Your task to perform on an android device: Go to network settings Image 0: 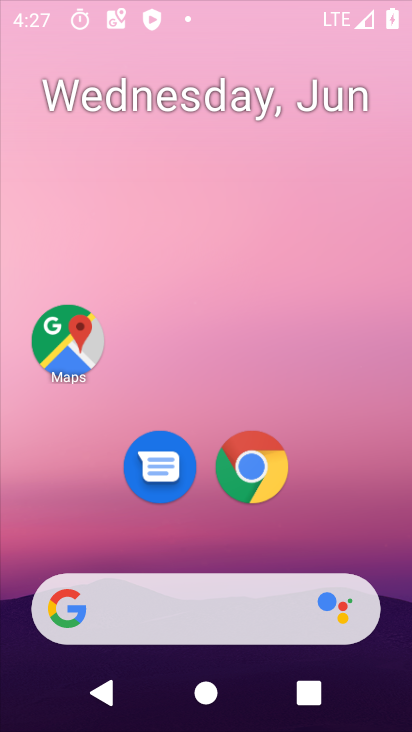
Step 0: press home button
Your task to perform on an android device: Go to network settings Image 1: 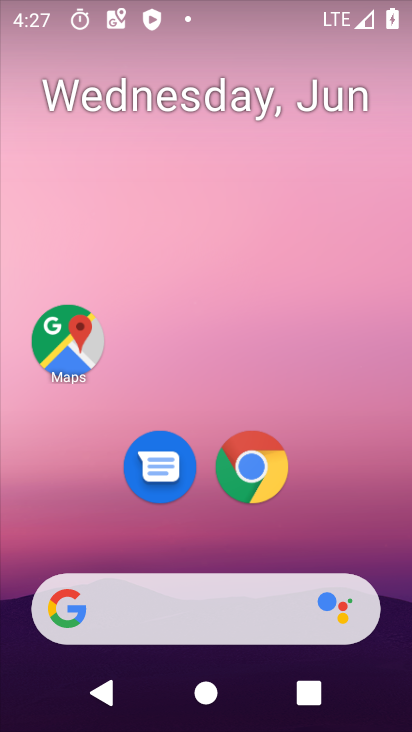
Step 1: drag from (339, 542) to (258, 4)
Your task to perform on an android device: Go to network settings Image 2: 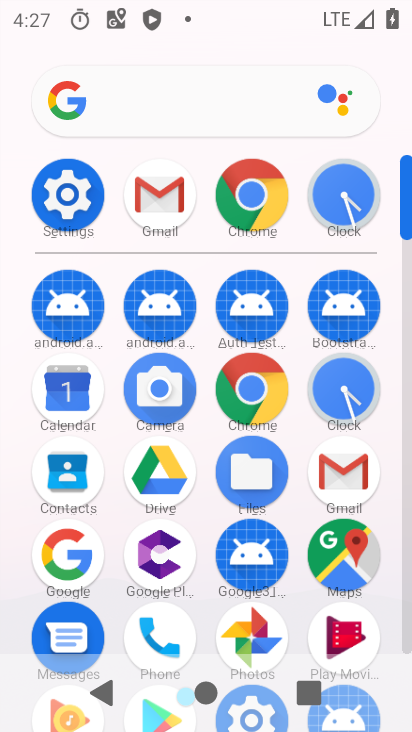
Step 2: click (68, 202)
Your task to perform on an android device: Go to network settings Image 3: 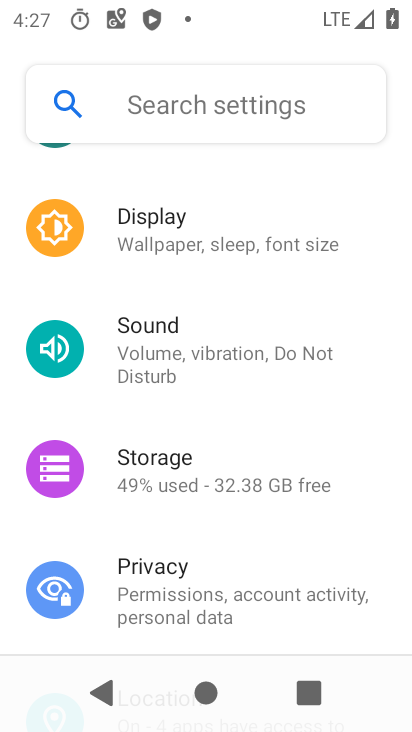
Step 3: drag from (245, 217) to (220, 725)
Your task to perform on an android device: Go to network settings Image 4: 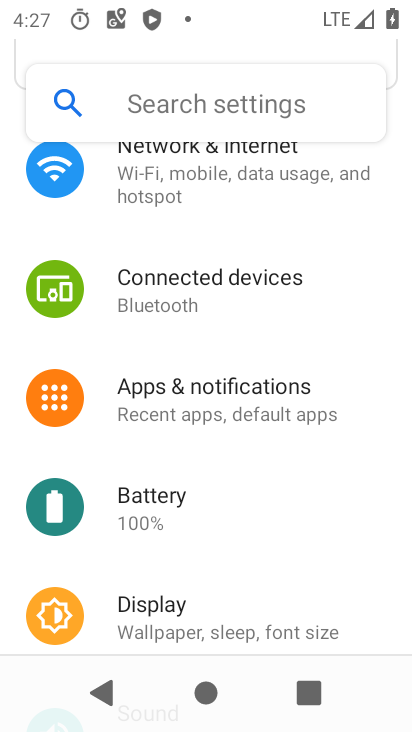
Step 4: click (231, 176)
Your task to perform on an android device: Go to network settings Image 5: 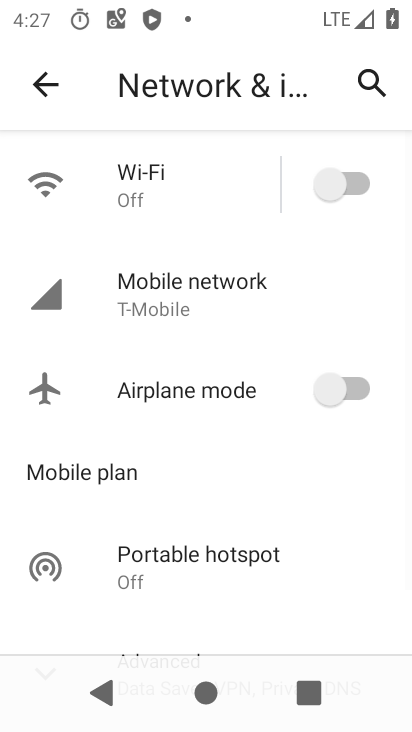
Step 5: task complete